Your task to perform on an android device: What is the recent news? Image 0: 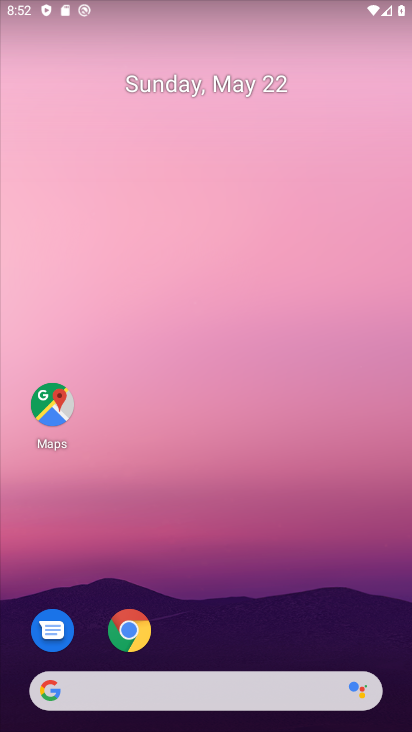
Step 0: drag from (0, 243) to (276, 207)
Your task to perform on an android device: What is the recent news? Image 1: 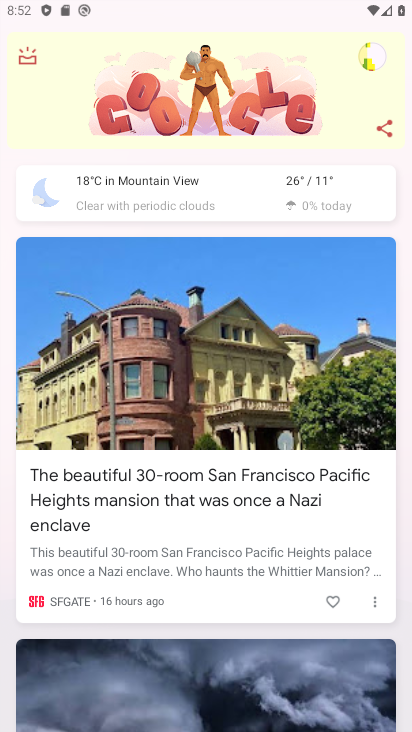
Step 1: task complete